Your task to perform on an android device: stop showing notifications on the lock screen Image 0: 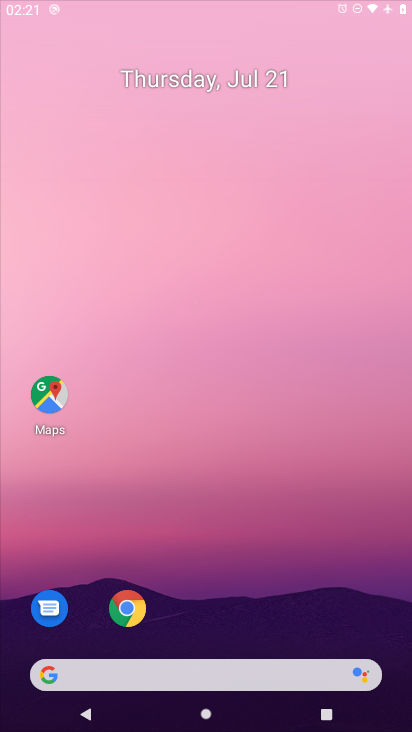
Step 0: press home button
Your task to perform on an android device: stop showing notifications on the lock screen Image 1: 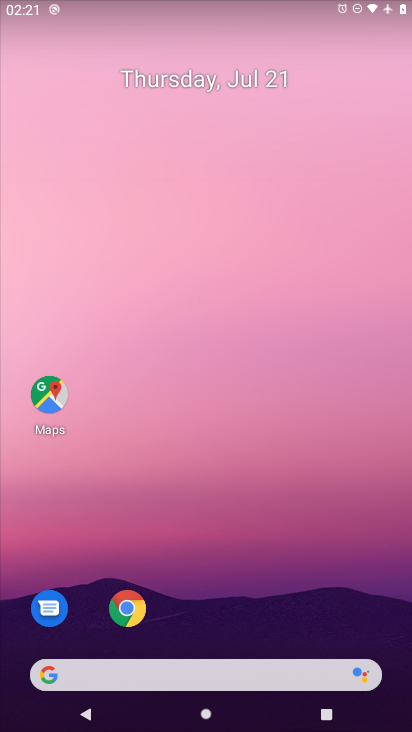
Step 1: drag from (223, 629) to (248, 15)
Your task to perform on an android device: stop showing notifications on the lock screen Image 2: 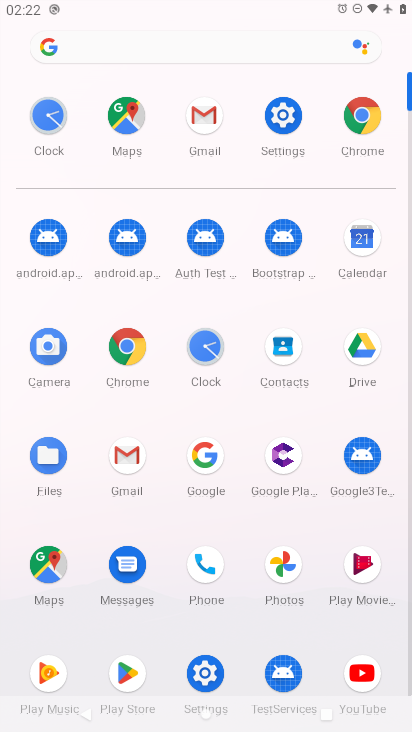
Step 2: click (287, 109)
Your task to perform on an android device: stop showing notifications on the lock screen Image 3: 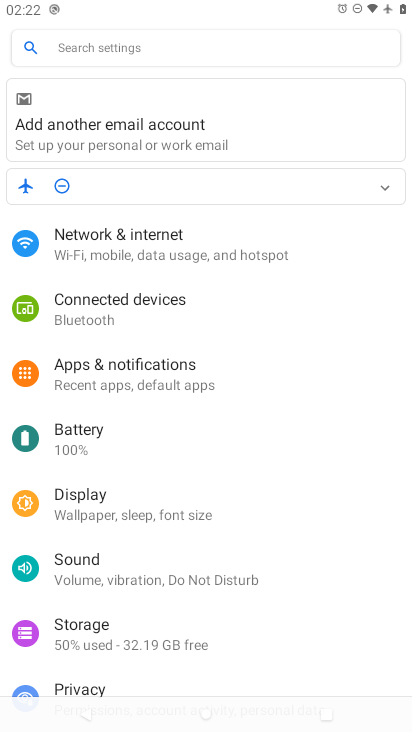
Step 3: click (134, 367)
Your task to perform on an android device: stop showing notifications on the lock screen Image 4: 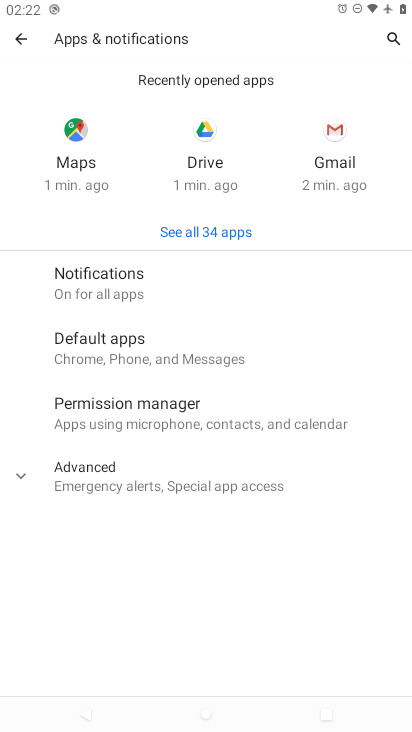
Step 4: click (87, 278)
Your task to perform on an android device: stop showing notifications on the lock screen Image 5: 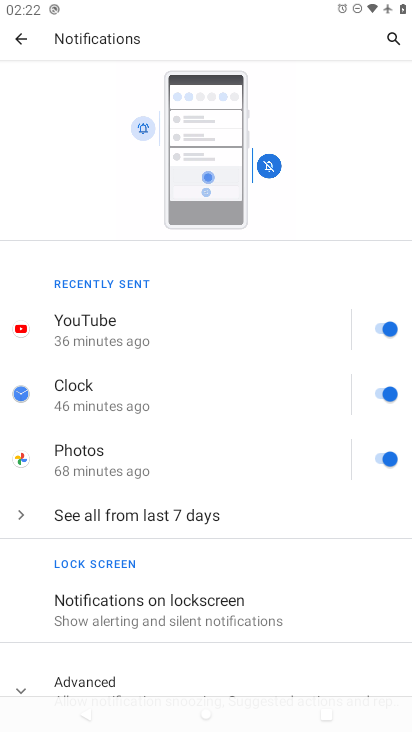
Step 5: click (195, 611)
Your task to perform on an android device: stop showing notifications on the lock screen Image 6: 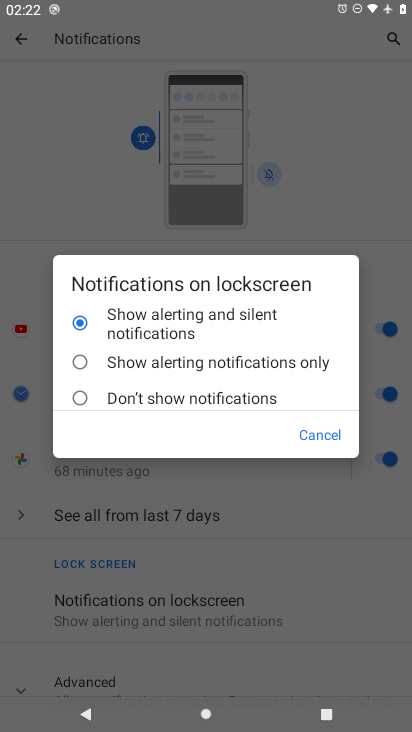
Step 6: click (81, 394)
Your task to perform on an android device: stop showing notifications on the lock screen Image 7: 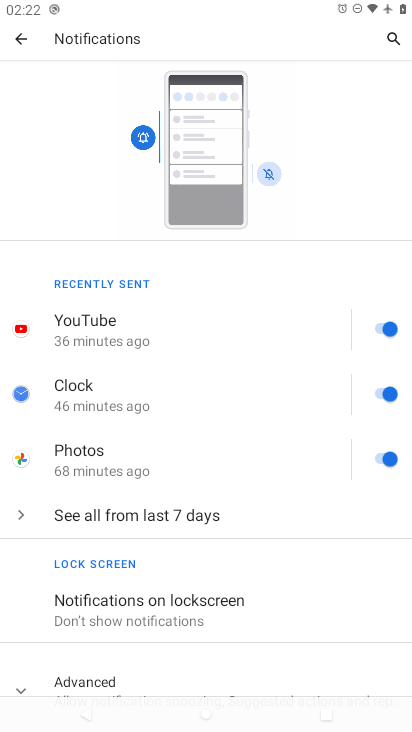
Step 7: task complete